Your task to perform on an android device: Open eBay Image 0: 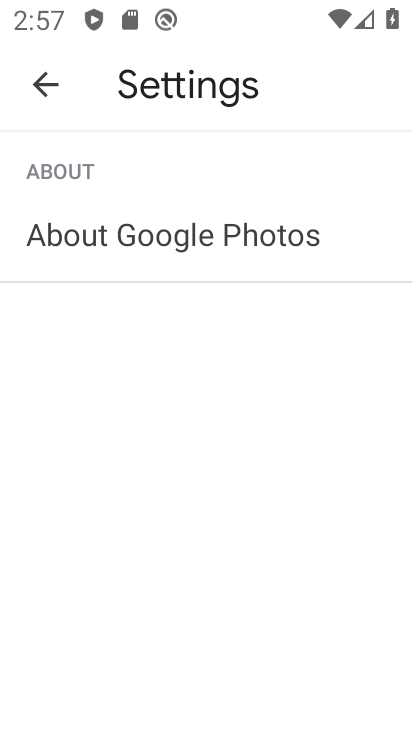
Step 0: press home button
Your task to perform on an android device: Open eBay Image 1: 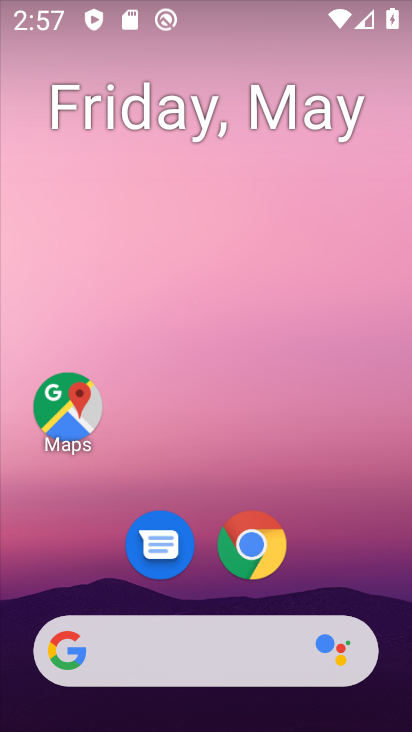
Step 1: click (232, 543)
Your task to perform on an android device: Open eBay Image 2: 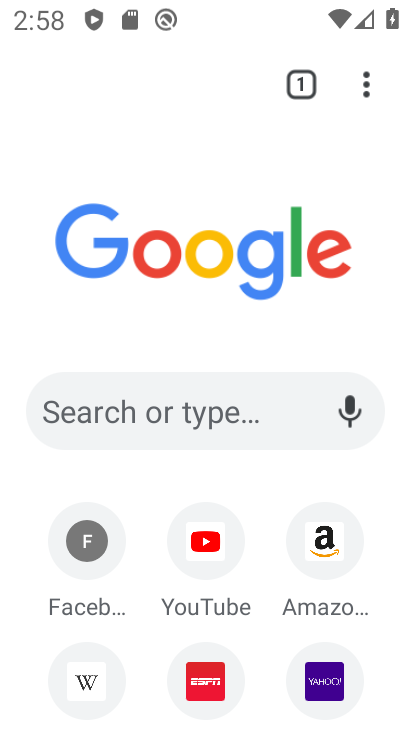
Step 2: click (241, 404)
Your task to perform on an android device: Open eBay Image 3: 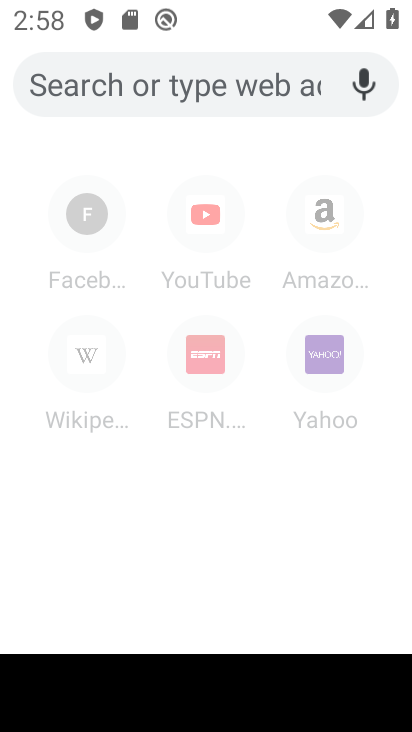
Step 3: type "ebay"
Your task to perform on an android device: Open eBay Image 4: 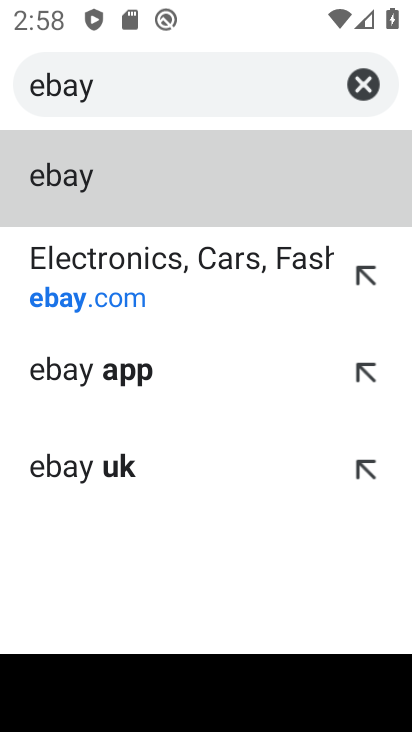
Step 4: click (150, 193)
Your task to perform on an android device: Open eBay Image 5: 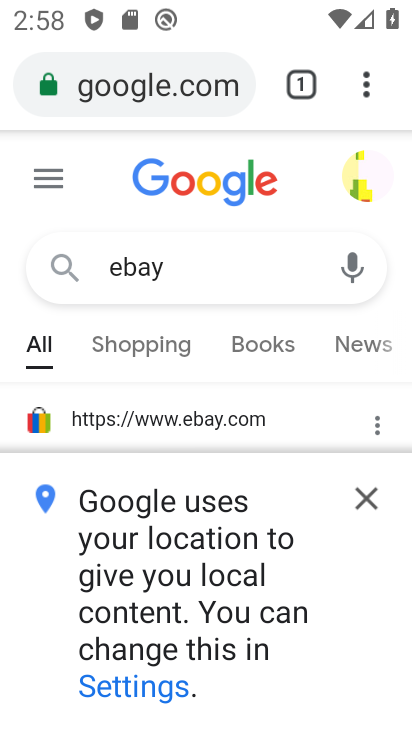
Step 5: drag from (228, 405) to (263, 8)
Your task to perform on an android device: Open eBay Image 6: 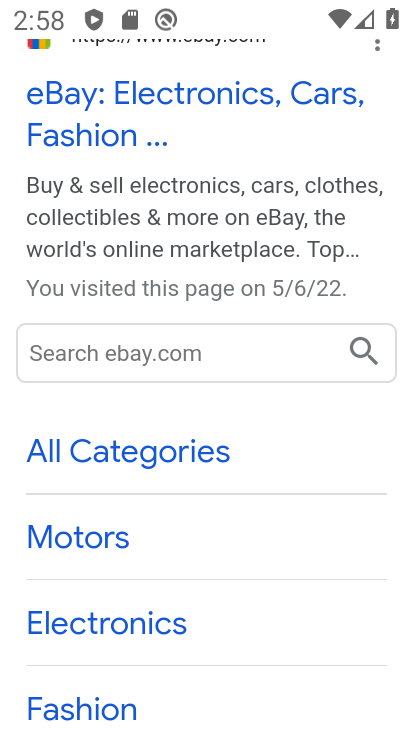
Step 6: click (108, 107)
Your task to perform on an android device: Open eBay Image 7: 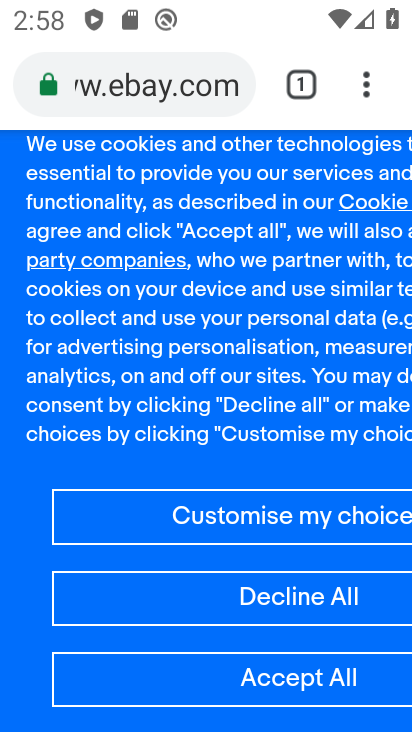
Step 7: task complete